Your task to perform on an android device: open chrome and create a bookmark for the current page Image 0: 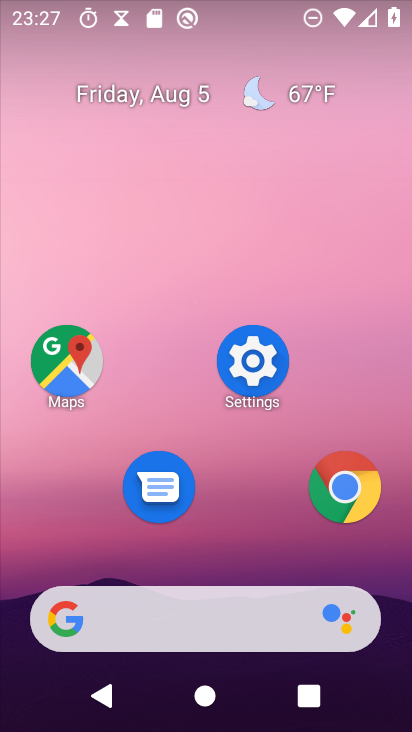
Step 0: click (356, 490)
Your task to perform on an android device: open chrome and create a bookmark for the current page Image 1: 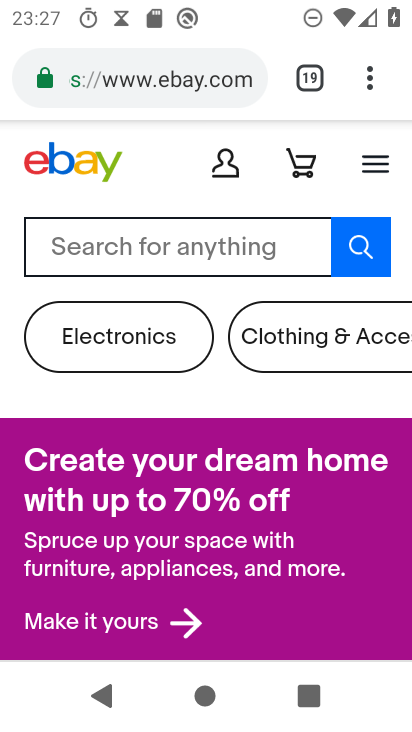
Step 1: click (369, 84)
Your task to perform on an android device: open chrome and create a bookmark for the current page Image 2: 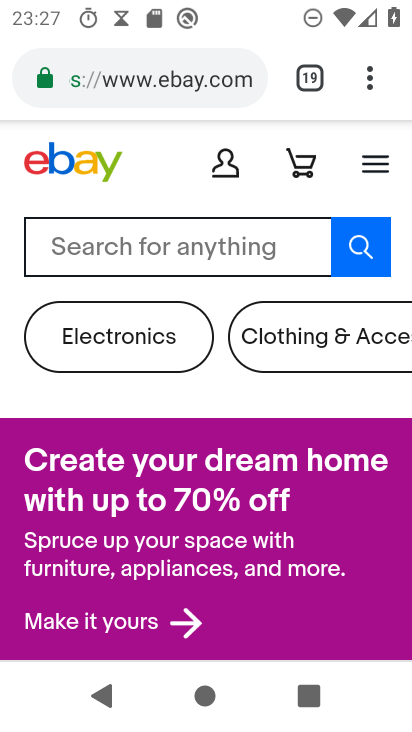
Step 2: click (366, 104)
Your task to perform on an android device: open chrome and create a bookmark for the current page Image 3: 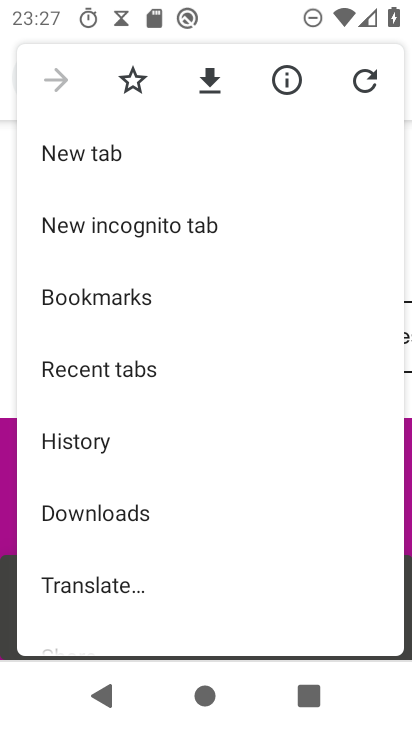
Step 3: click (133, 82)
Your task to perform on an android device: open chrome and create a bookmark for the current page Image 4: 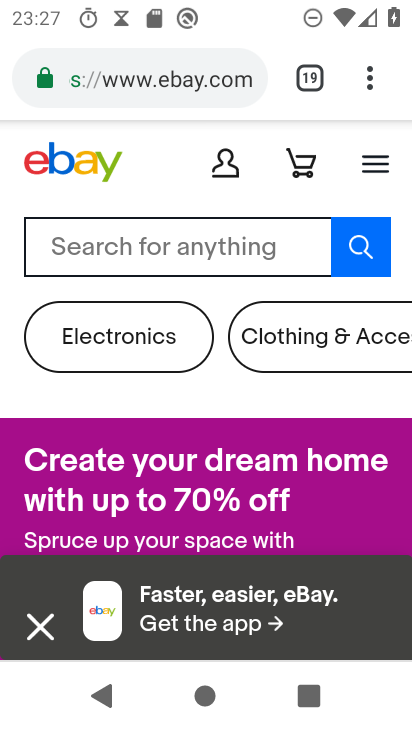
Step 4: task complete